Your task to perform on an android device: Open battery settings Image 0: 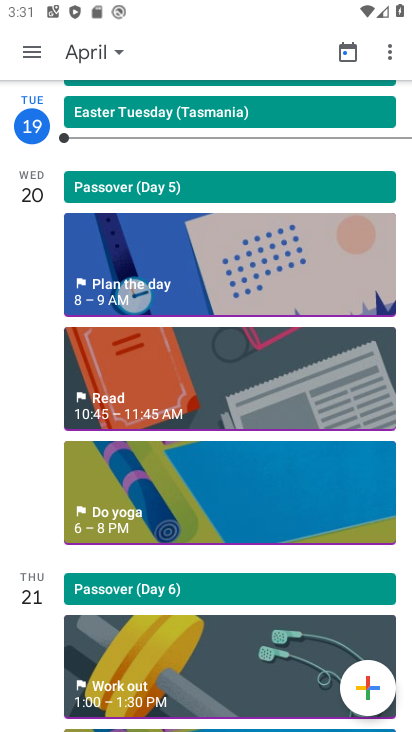
Step 0: press home button
Your task to perform on an android device: Open battery settings Image 1: 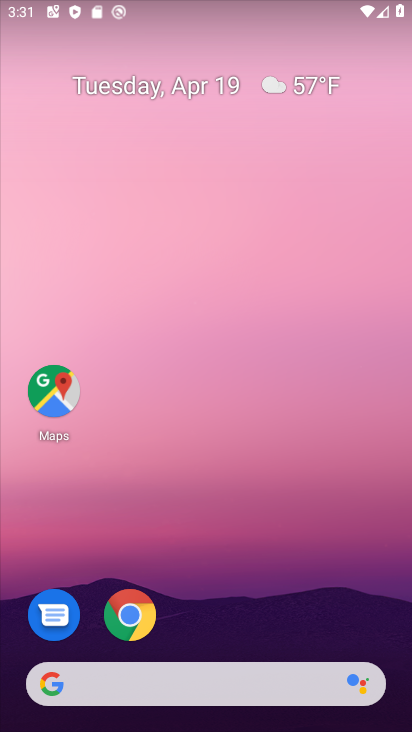
Step 1: drag from (218, 607) to (229, 202)
Your task to perform on an android device: Open battery settings Image 2: 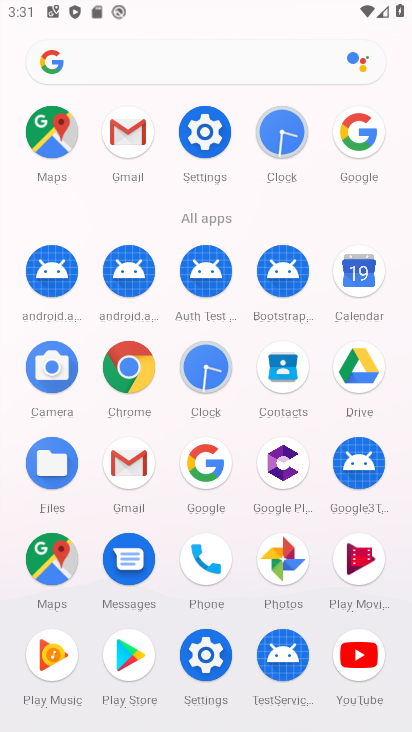
Step 2: click (212, 138)
Your task to perform on an android device: Open battery settings Image 3: 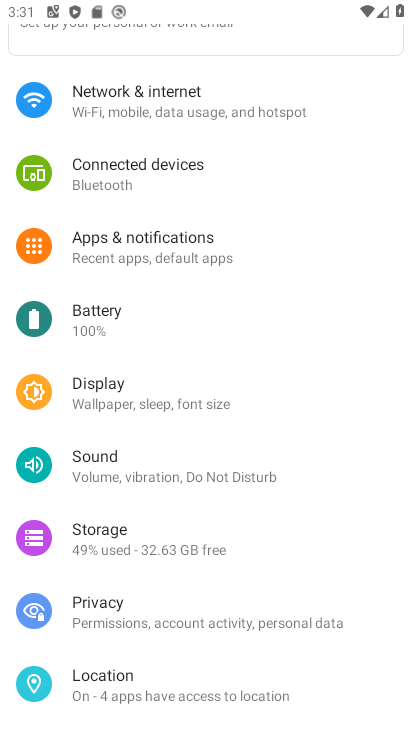
Step 3: click (124, 320)
Your task to perform on an android device: Open battery settings Image 4: 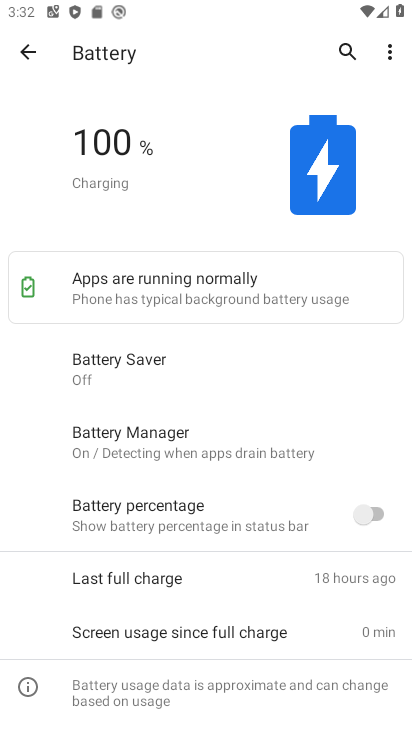
Step 4: task complete